Your task to perform on an android device: Open Yahoo.com Image 0: 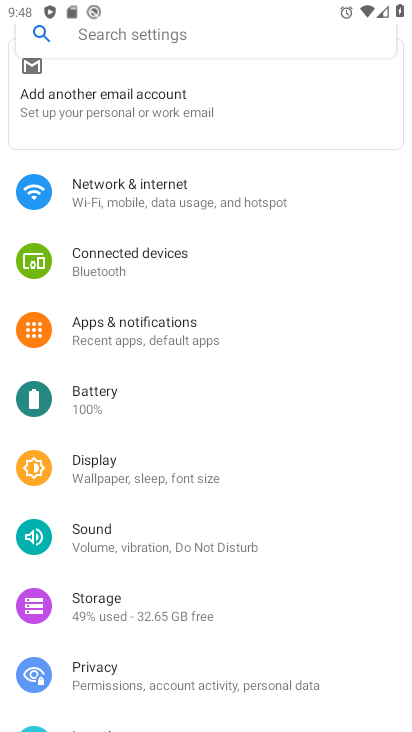
Step 0: press home button
Your task to perform on an android device: Open Yahoo.com Image 1: 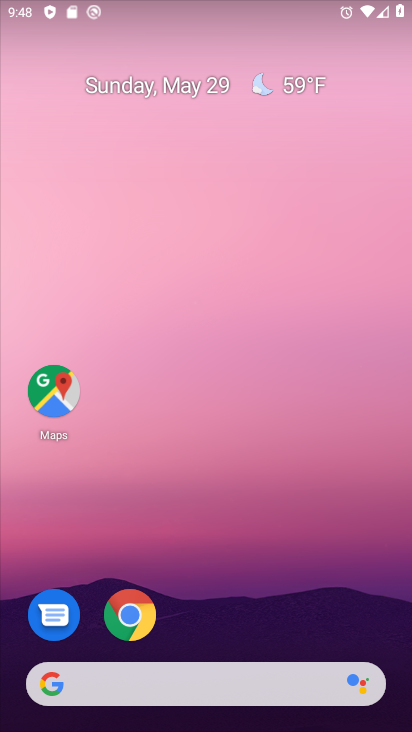
Step 1: click (130, 618)
Your task to perform on an android device: Open Yahoo.com Image 2: 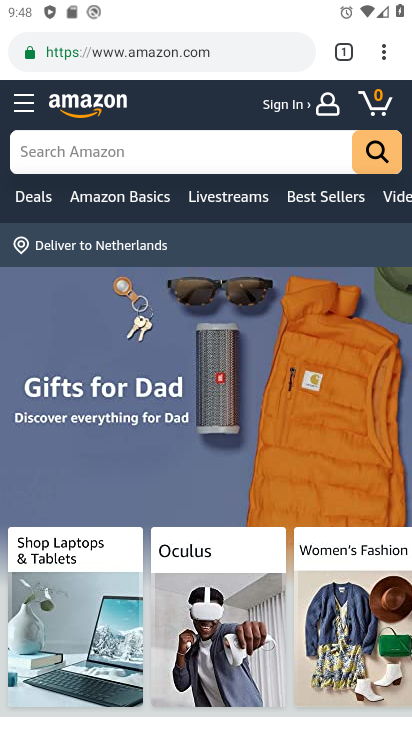
Step 2: press back button
Your task to perform on an android device: Open Yahoo.com Image 3: 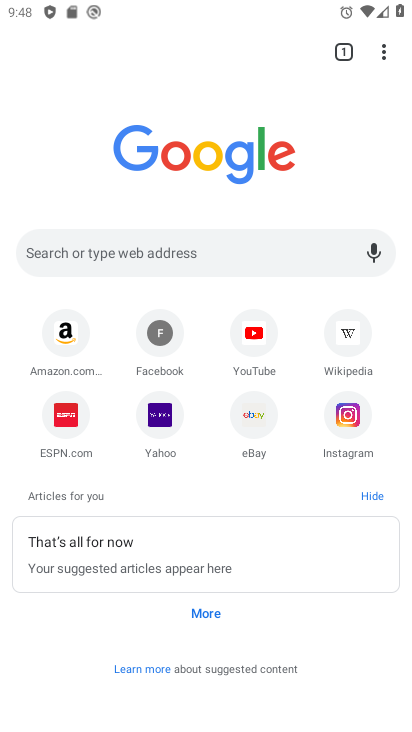
Step 3: click (169, 424)
Your task to perform on an android device: Open Yahoo.com Image 4: 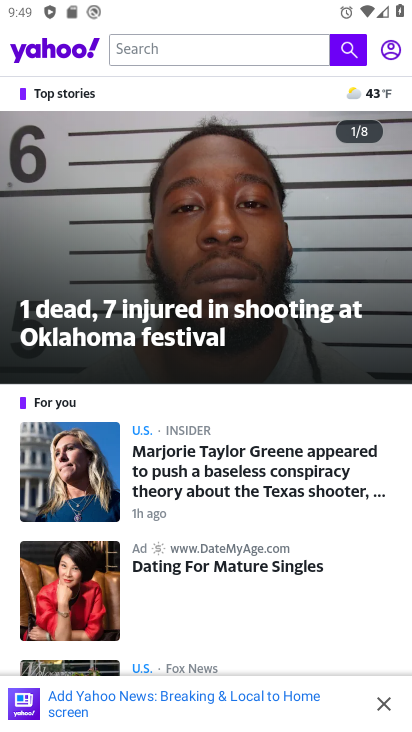
Step 4: task complete